Your task to perform on an android device: find which apps use the phone's location Image 0: 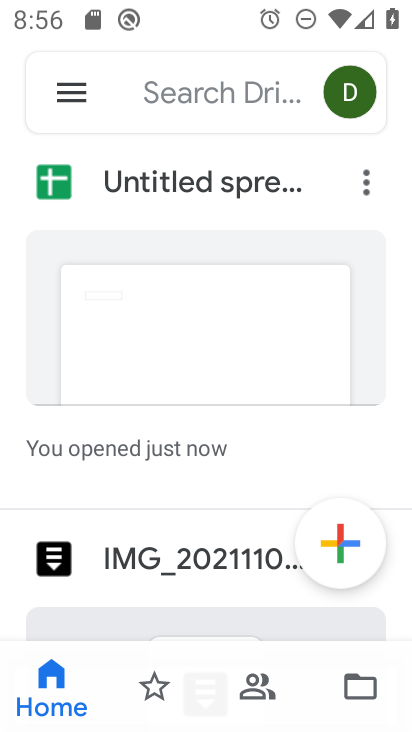
Step 0: press home button
Your task to perform on an android device: find which apps use the phone's location Image 1: 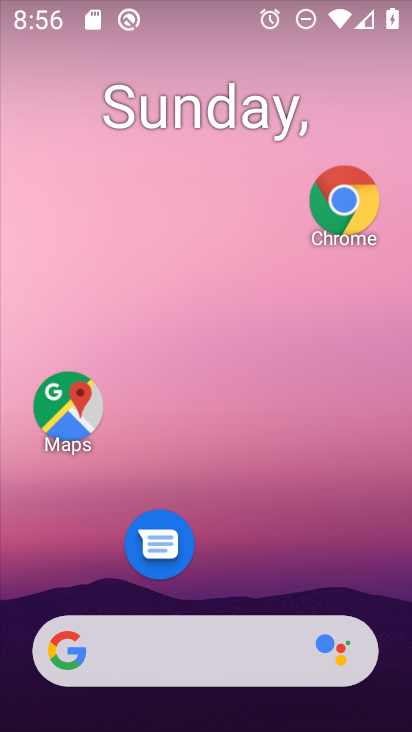
Step 1: drag from (289, 565) to (304, 48)
Your task to perform on an android device: find which apps use the phone's location Image 2: 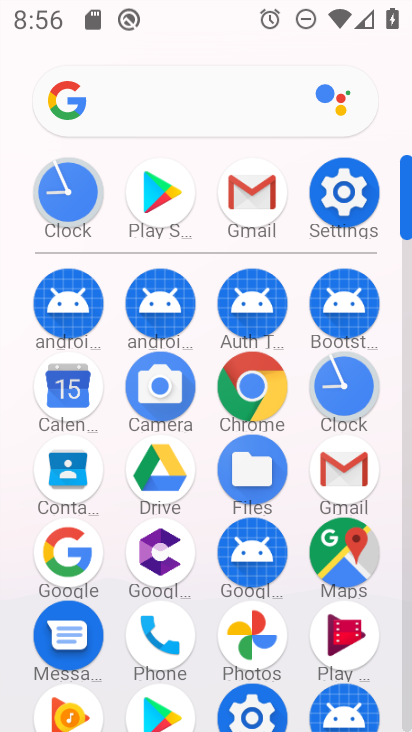
Step 2: click (339, 185)
Your task to perform on an android device: find which apps use the phone's location Image 3: 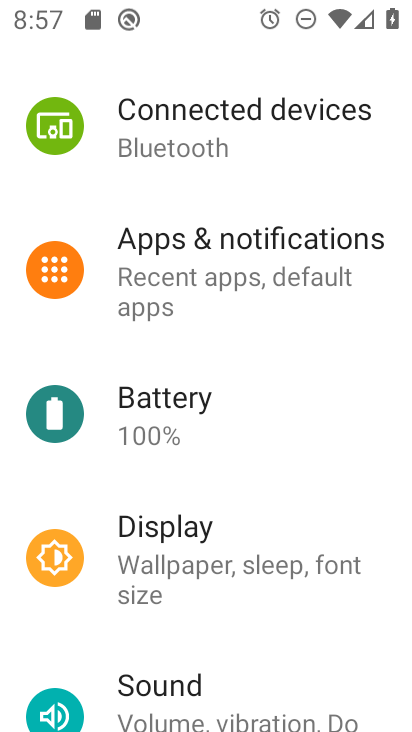
Step 3: drag from (206, 661) to (184, 476)
Your task to perform on an android device: find which apps use the phone's location Image 4: 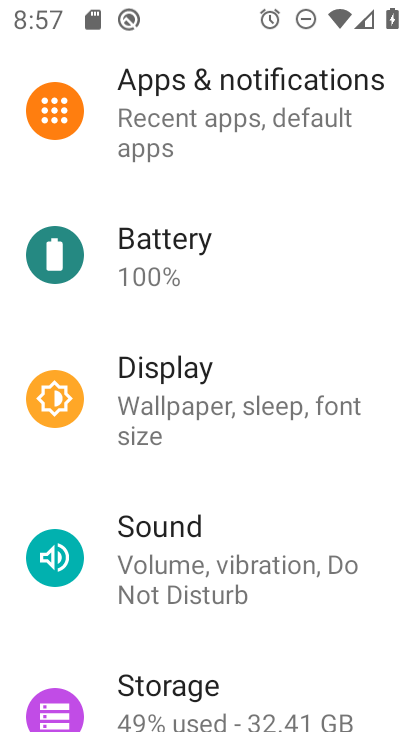
Step 4: drag from (199, 658) to (211, 453)
Your task to perform on an android device: find which apps use the phone's location Image 5: 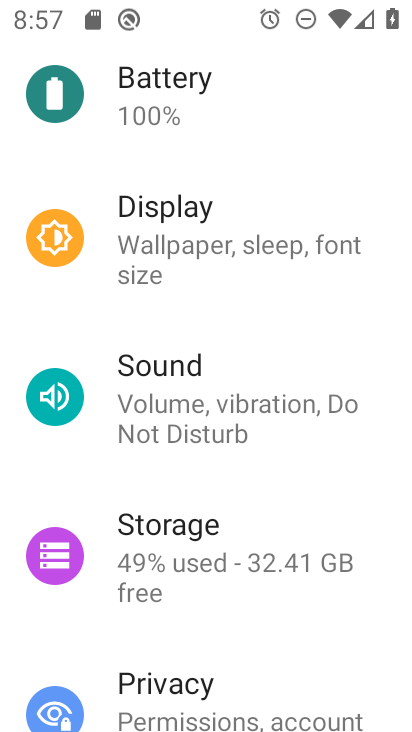
Step 5: drag from (210, 662) to (206, 432)
Your task to perform on an android device: find which apps use the phone's location Image 6: 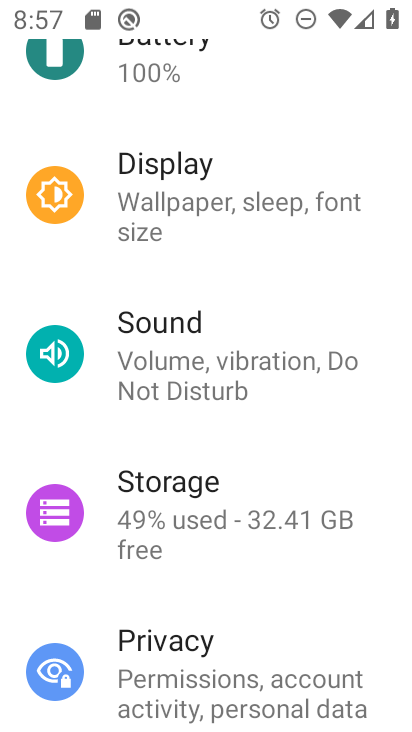
Step 6: drag from (193, 592) to (197, 360)
Your task to perform on an android device: find which apps use the phone's location Image 7: 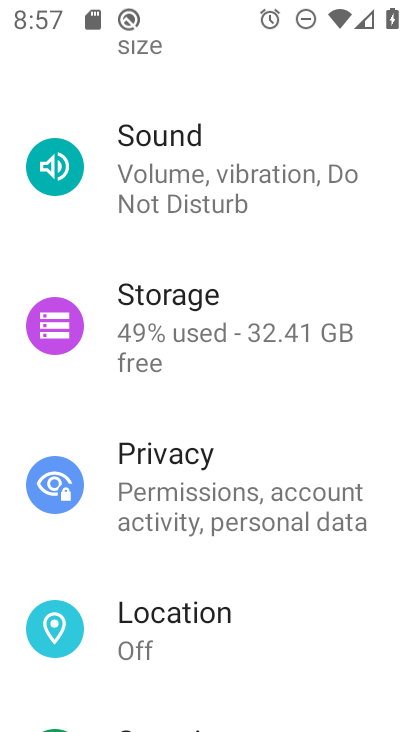
Step 7: click (132, 618)
Your task to perform on an android device: find which apps use the phone's location Image 8: 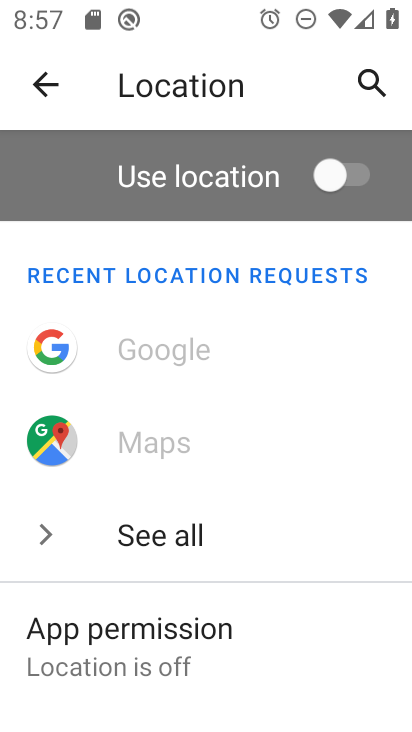
Step 8: click (209, 648)
Your task to perform on an android device: find which apps use the phone's location Image 9: 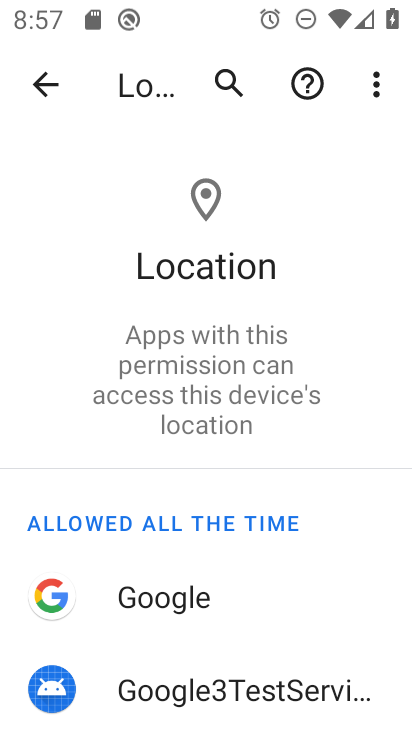
Step 9: task complete